Your task to perform on an android device: turn off location Image 0: 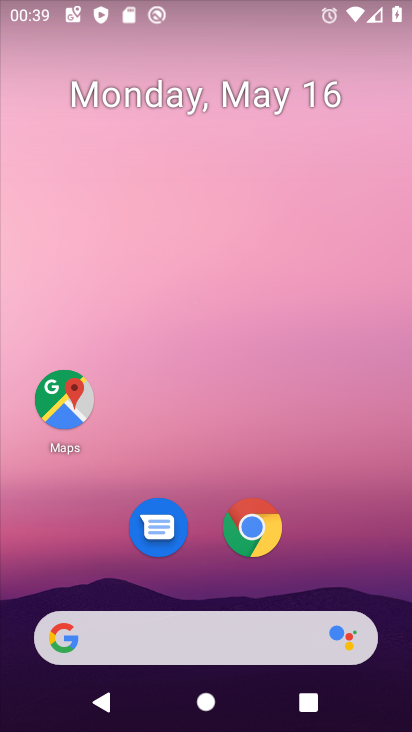
Step 0: drag from (362, 562) to (310, 125)
Your task to perform on an android device: turn off location Image 1: 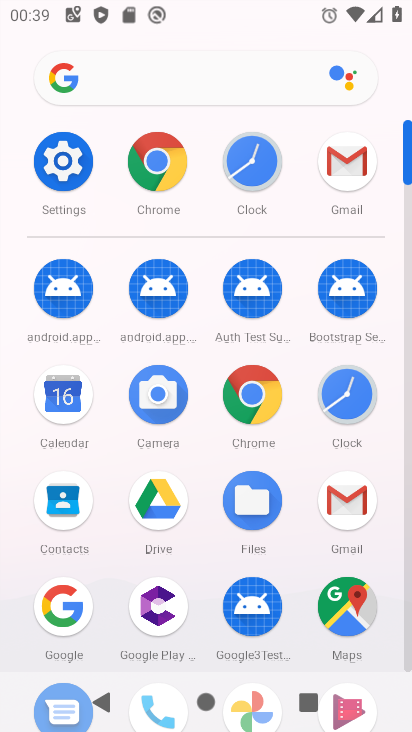
Step 1: click (47, 181)
Your task to perform on an android device: turn off location Image 2: 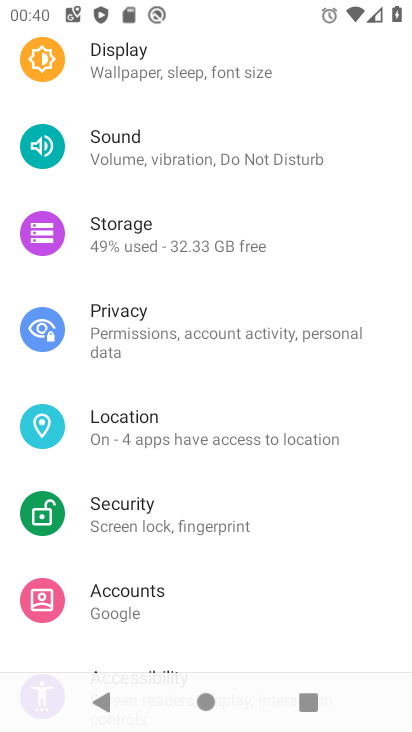
Step 2: drag from (47, 181) to (120, 403)
Your task to perform on an android device: turn off location Image 3: 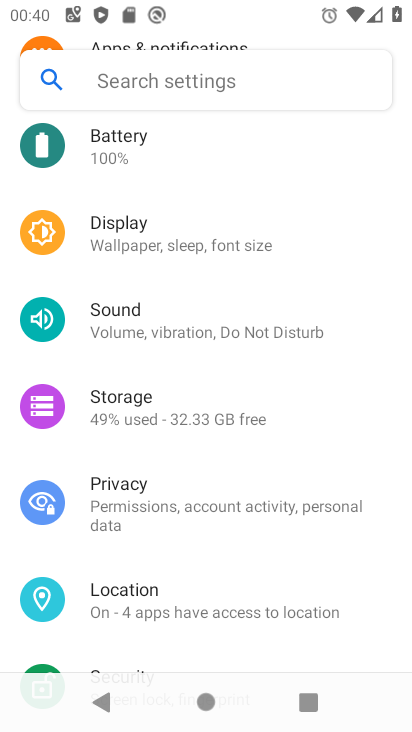
Step 3: click (217, 583)
Your task to perform on an android device: turn off location Image 4: 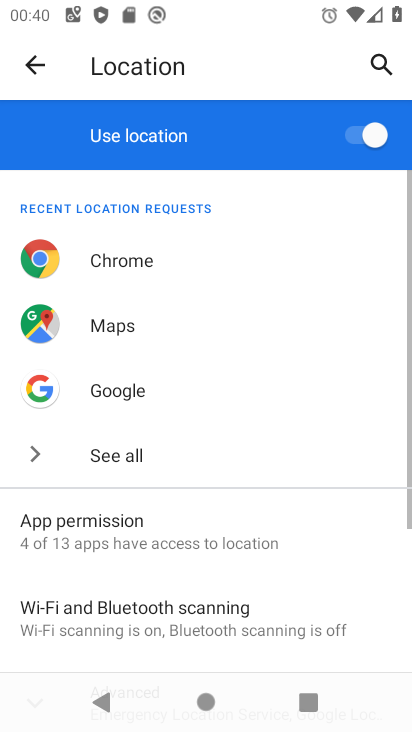
Step 4: click (355, 136)
Your task to perform on an android device: turn off location Image 5: 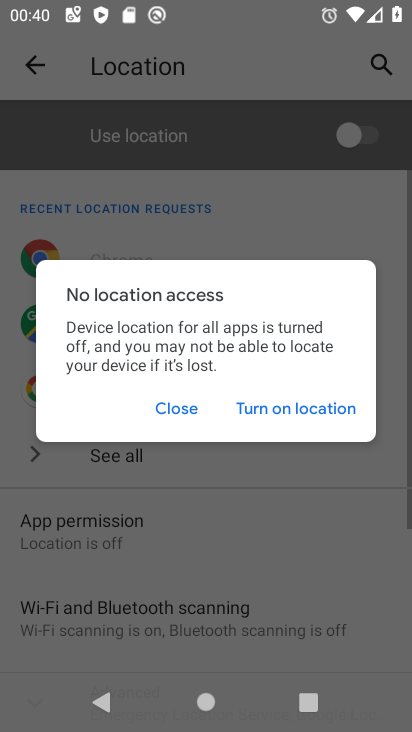
Step 5: task complete